Your task to perform on an android device: snooze an email in the gmail app Image 0: 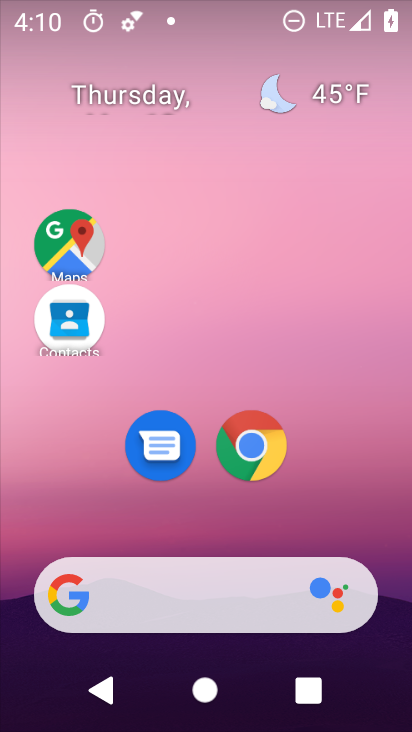
Step 0: drag from (323, 510) to (225, 75)
Your task to perform on an android device: snooze an email in the gmail app Image 1: 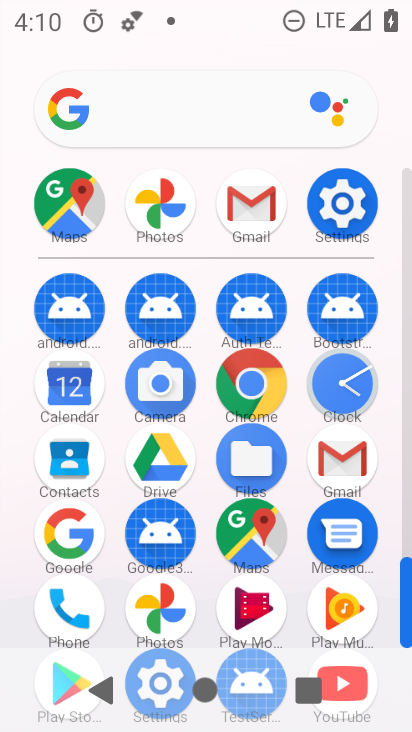
Step 1: click (339, 458)
Your task to perform on an android device: snooze an email in the gmail app Image 2: 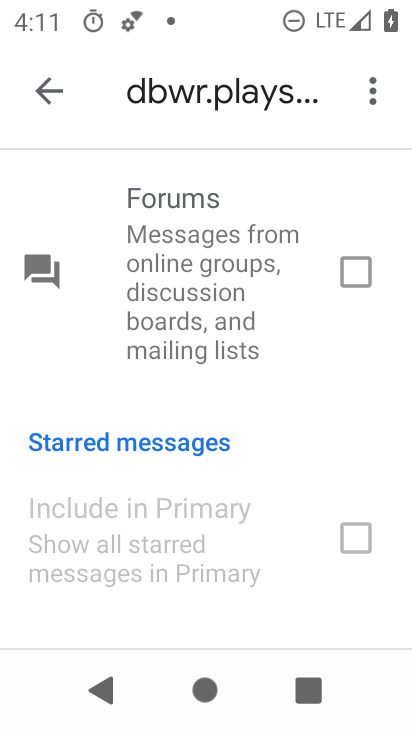
Step 2: press back button
Your task to perform on an android device: snooze an email in the gmail app Image 3: 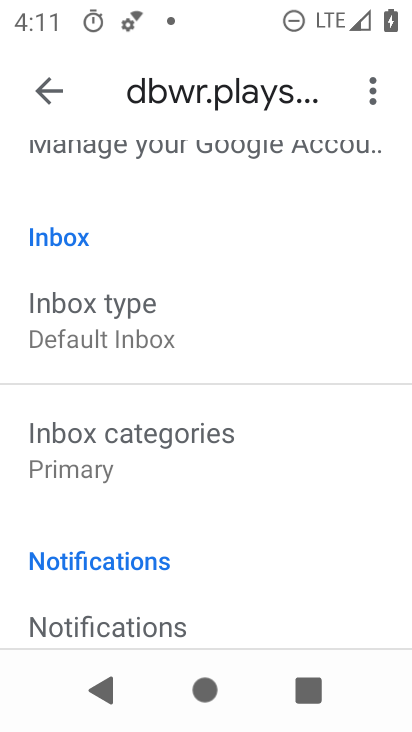
Step 3: press back button
Your task to perform on an android device: snooze an email in the gmail app Image 4: 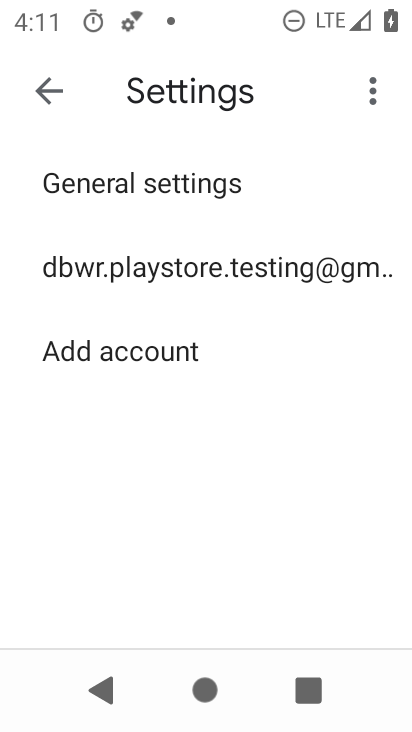
Step 4: press back button
Your task to perform on an android device: snooze an email in the gmail app Image 5: 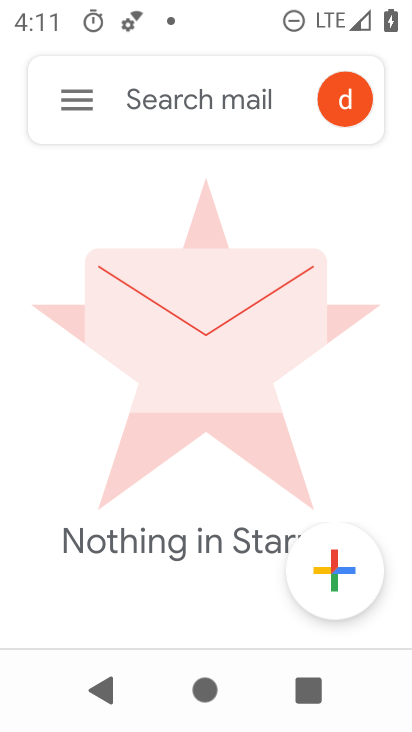
Step 5: click (76, 111)
Your task to perform on an android device: snooze an email in the gmail app Image 6: 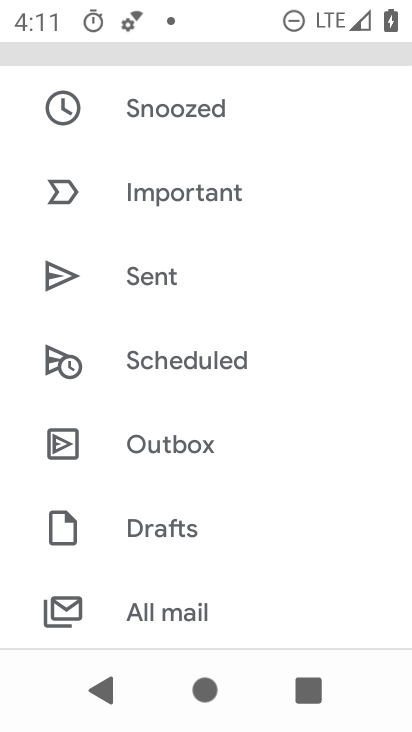
Step 6: drag from (198, 118) to (244, 409)
Your task to perform on an android device: snooze an email in the gmail app Image 7: 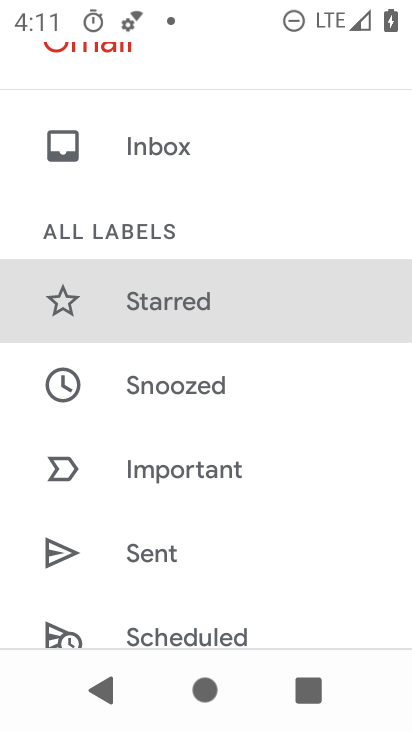
Step 7: click (158, 153)
Your task to perform on an android device: snooze an email in the gmail app Image 8: 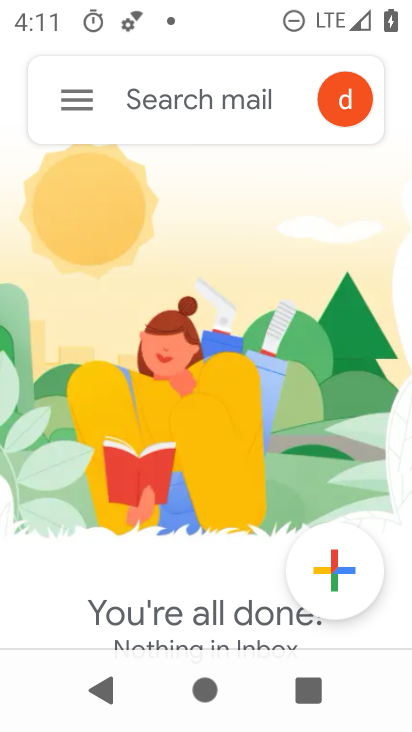
Step 8: task complete